Your task to perform on an android device: Open calendar and show me the second week of next month Image 0: 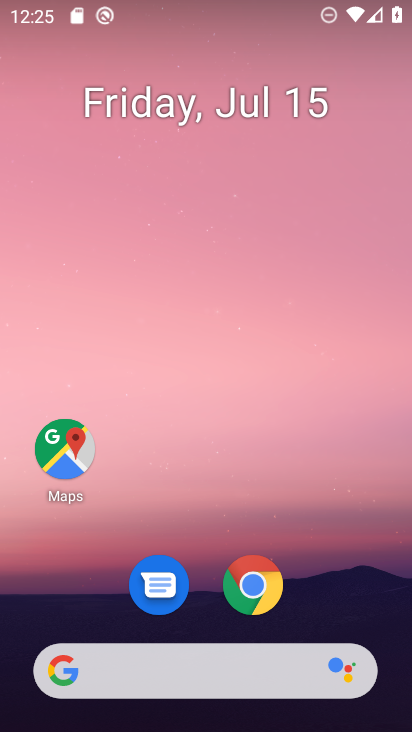
Step 0: drag from (329, 560) to (374, 0)
Your task to perform on an android device: Open calendar and show me the second week of next month Image 1: 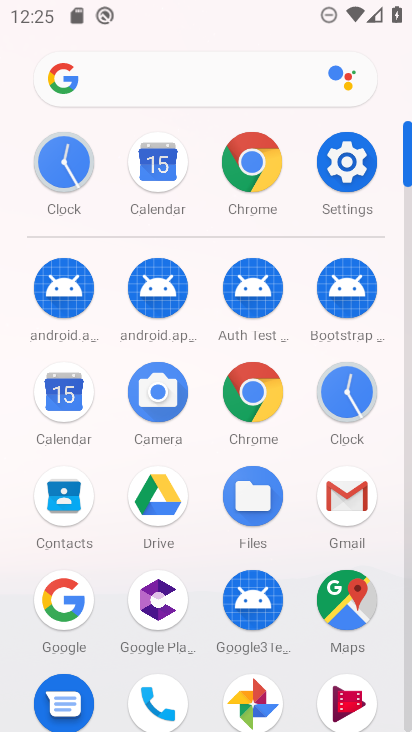
Step 1: click (140, 161)
Your task to perform on an android device: Open calendar and show me the second week of next month Image 2: 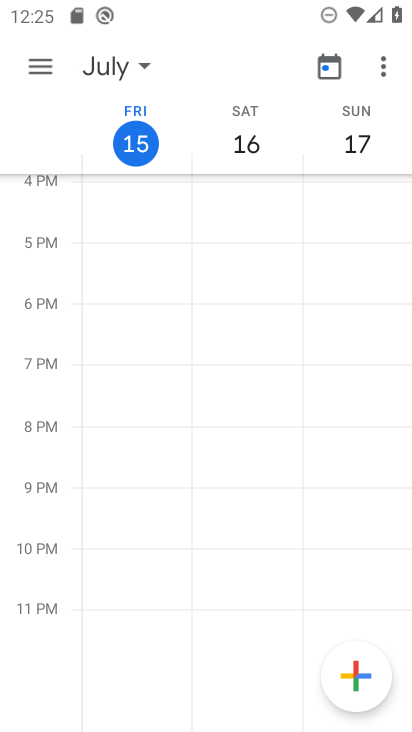
Step 2: click (37, 66)
Your task to perform on an android device: Open calendar and show me the second week of next month Image 3: 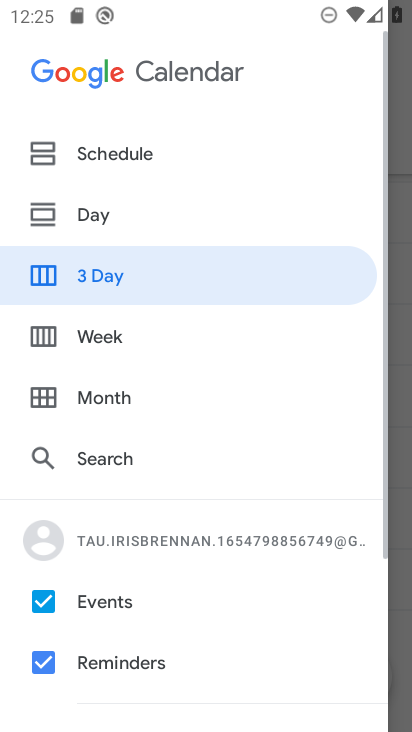
Step 3: click (92, 338)
Your task to perform on an android device: Open calendar and show me the second week of next month Image 4: 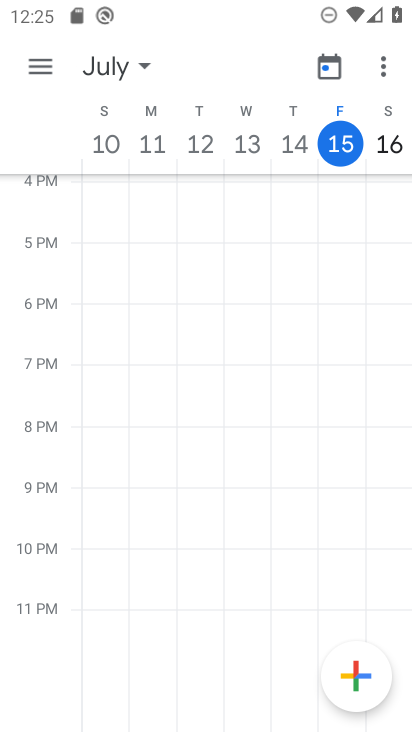
Step 4: task complete